Your task to perform on an android device: Open internet settings Image 0: 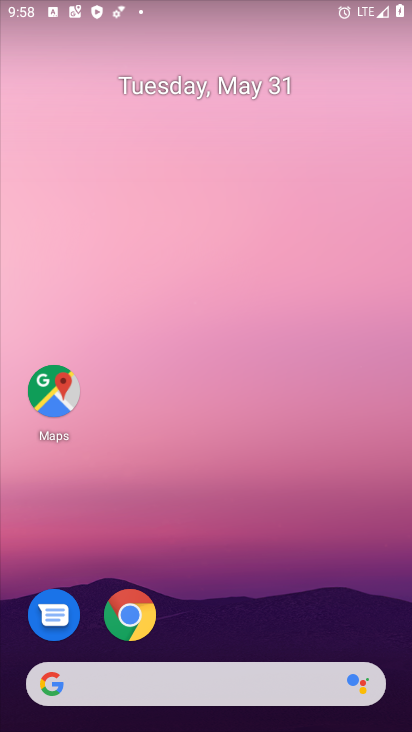
Step 0: drag from (365, 629) to (325, 88)
Your task to perform on an android device: Open internet settings Image 1: 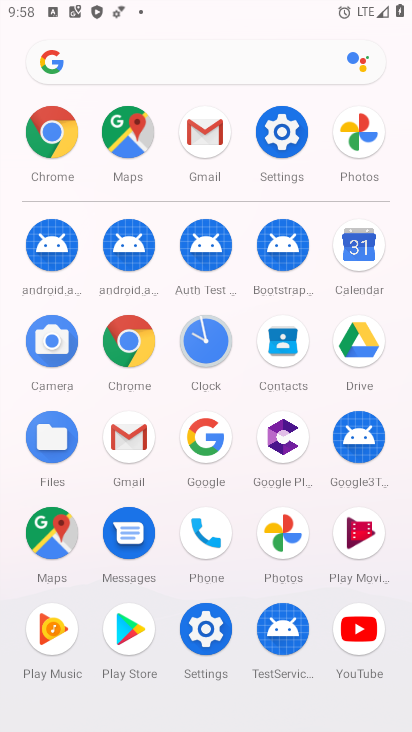
Step 1: click (205, 627)
Your task to perform on an android device: Open internet settings Image 2: 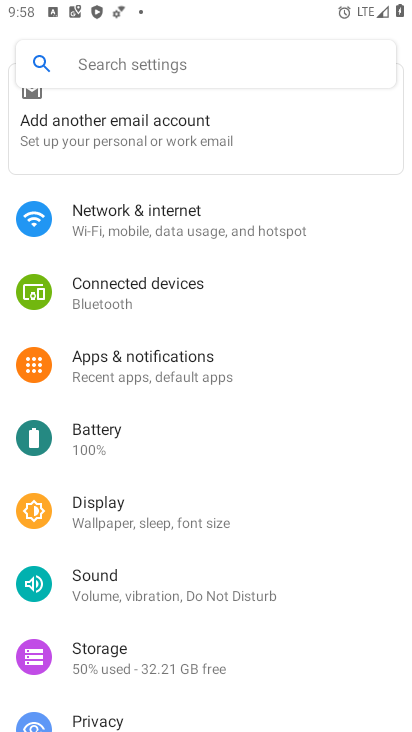
Step 2: click (131, 211)
Your task to perform on an android device: Open internet settings Image 3: 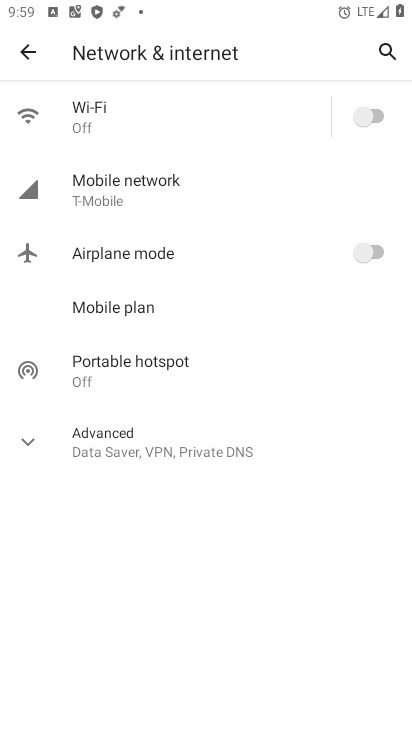
Step 3: click (117, 190)
Your task to perform on an android device: Open internet settings Image 4: 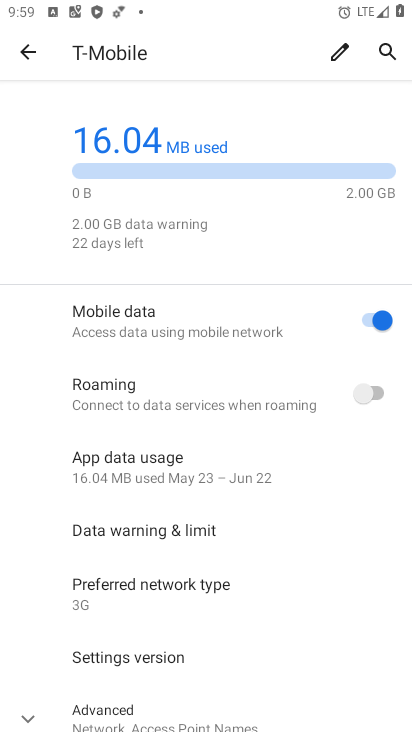
Step 4: drag from (280, 601) to (253, 316)
Your task to perform on an android device: Open internet settings Image 5: 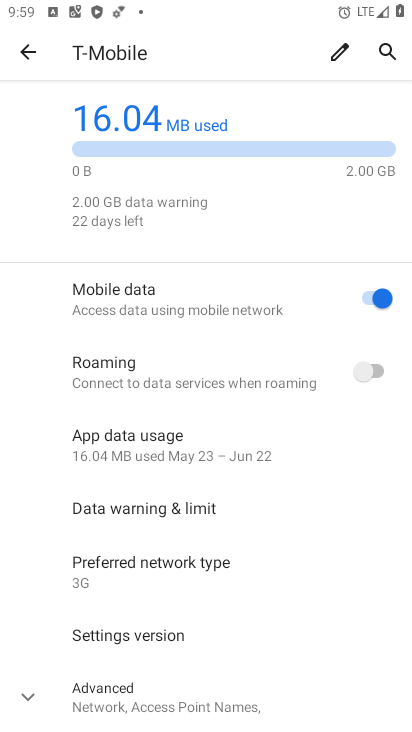
Step 5: click (30, 704)
Your task to perform on an android device: Open internet settings Image 6: 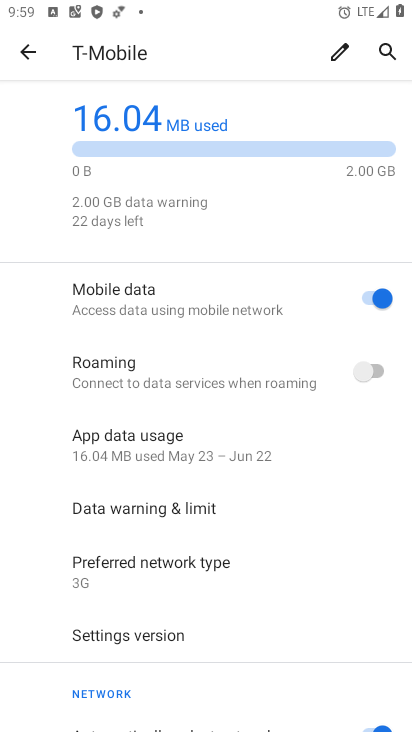
Step 6: task complete